Your task to perform on an android device: open a new tab in the chrome app Image 0: 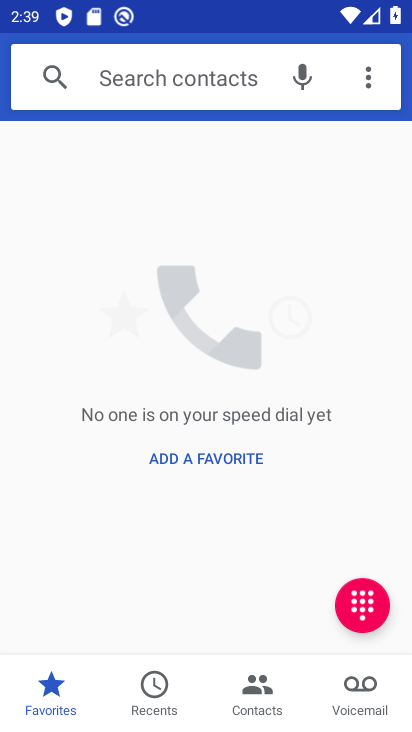
Step 0: press back button
Your task to perform on an android device: open a new tab in the chrome app Image 1: 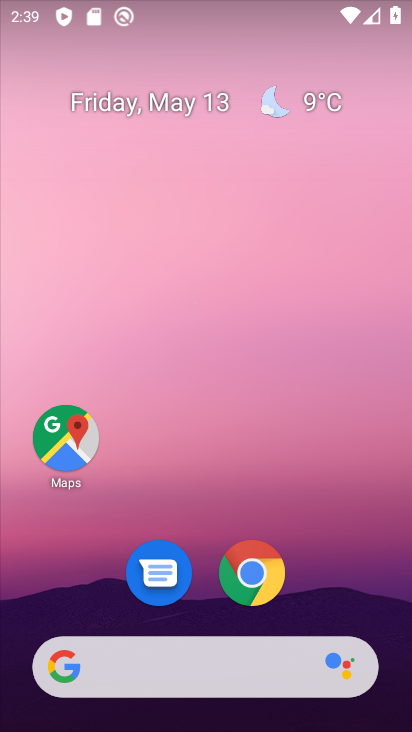
Step 1: click (250, 572)
Your task to perform on an android device: open a new tab in the chrome app Image 2: 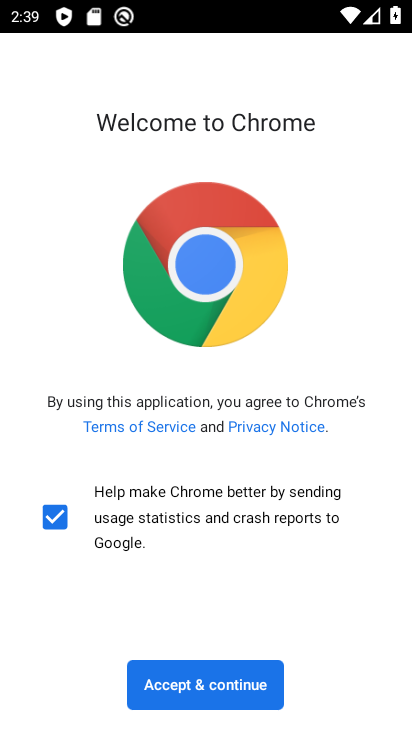
Step 2: click (214, 679)
Your task to perform on an android device: open a new tab in the chrome app Image 3: 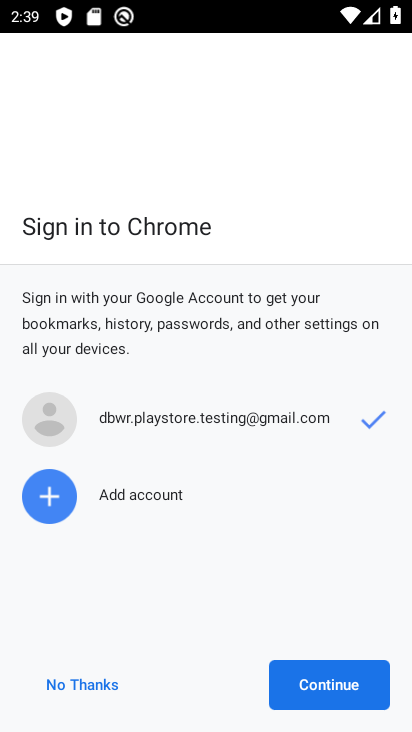
Step 3: click (314, 679)
Your task to perform on an android device: open a new tab in the chrome app Image 4: 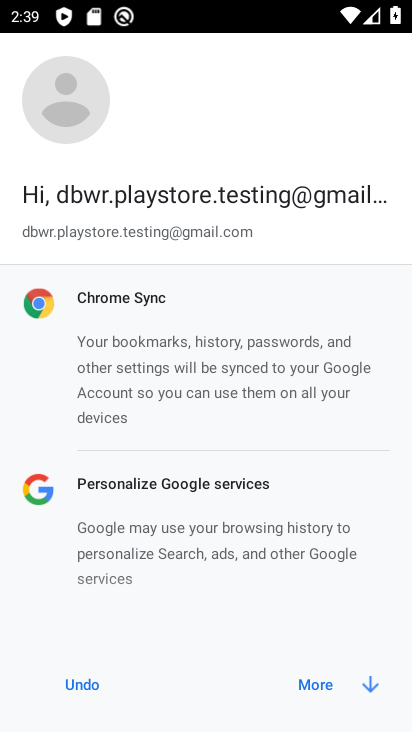
Step 4: click (325, 680)
Your task to perform on an android device: open a new tab in the chrome app Image 5: 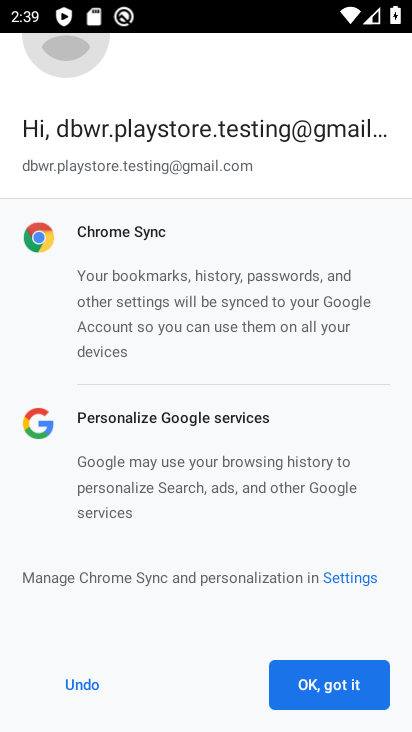
Step 5: click (325, 680)
Your task to perform on an android device: open a new tab in the chrome app Image 6: 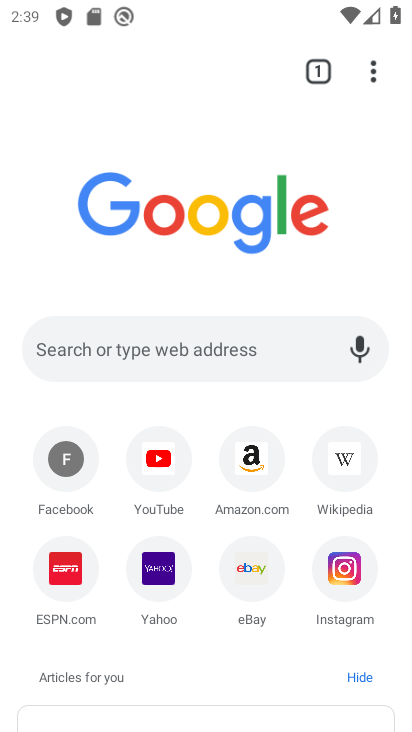
Step 6: click (375, 70)
Your task to perform on an android device: open a new tab in the chrome app Image 7: 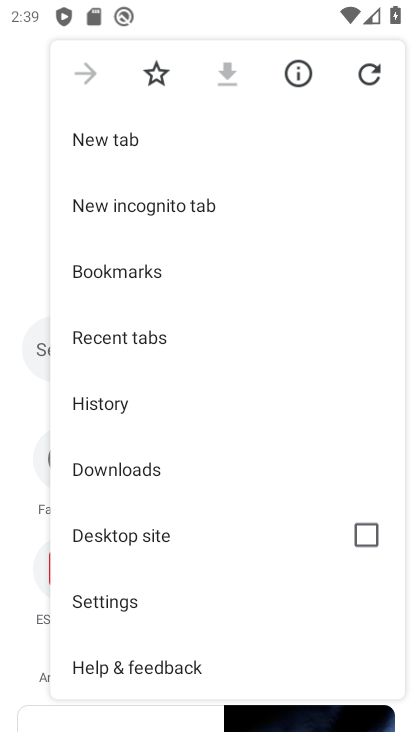
Step 7: click (127, 143)
Your task to perform on an android device: open a new tab in the chrome app Image 8: 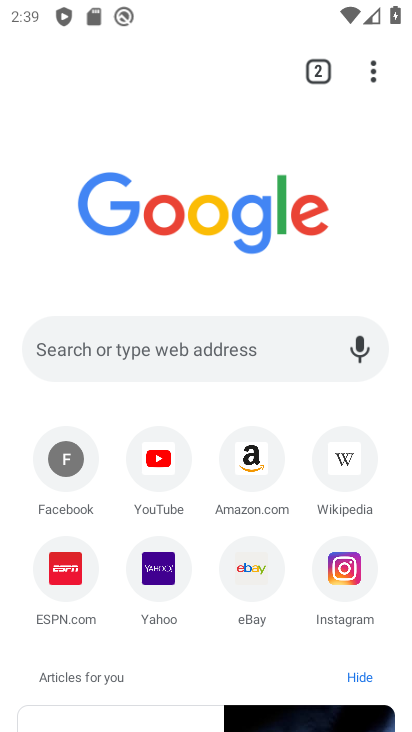
Step 8: task complete